Your task to perform on an android device: open app "Lyft - Rideshare, Bikes, Scooters & Transit" (install if not already installed) Image 0: 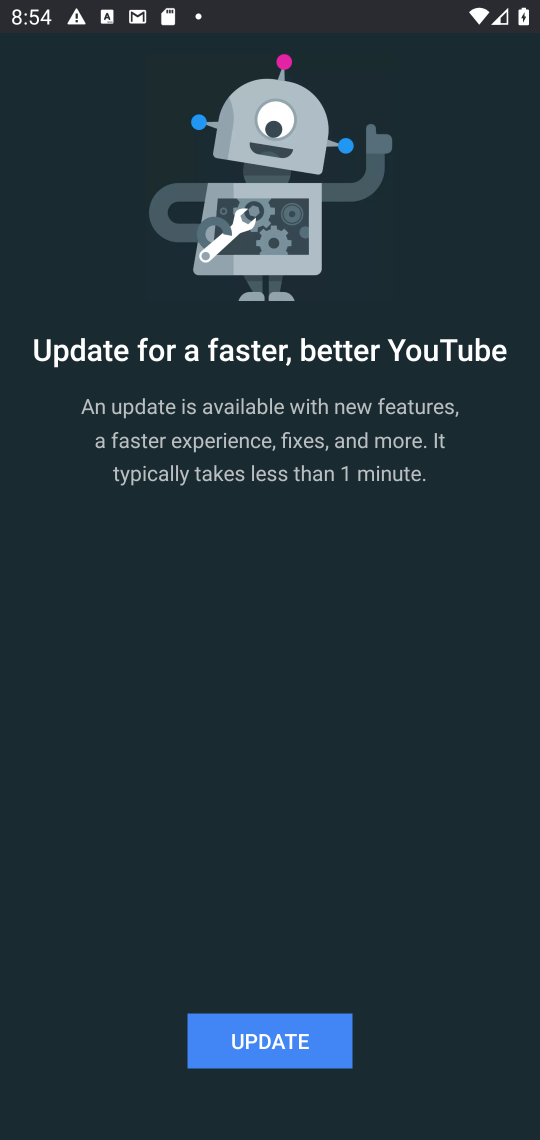
Step 0: press home button
Your task to perform on an android device: open app "Lyft - Rideshare, Bikes, Scooters & Transit" (install if not already installed) Image 1: 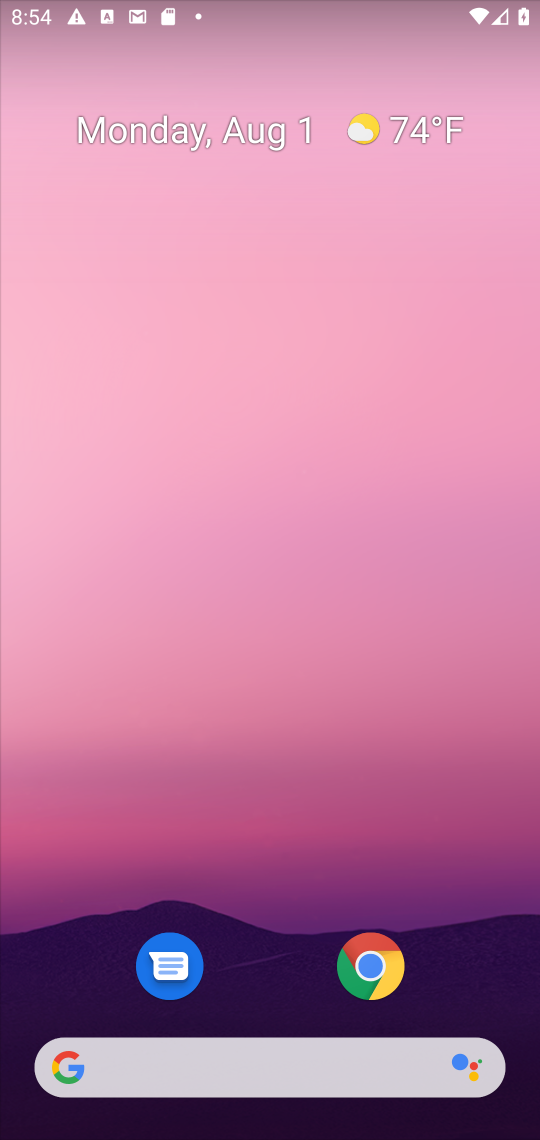
Step 1: drag from (511, 947) to (380, 111)
Your task to perform on an android device: open app "Lyft - Rideshare, Bikes, Scooters & Transit" (install if not already installed) Image 2: 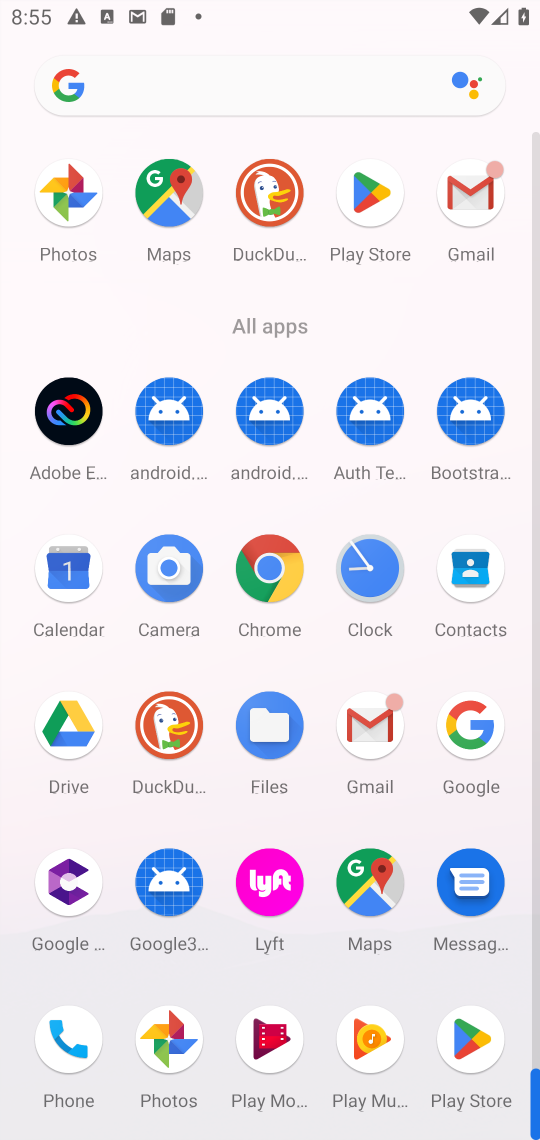
Step 2: click (376, 191)
Your task to perform on an android device: open app "Lyft - Rideshare, Bikes, Scooters & Transit" (install if not already installed) Image 3: 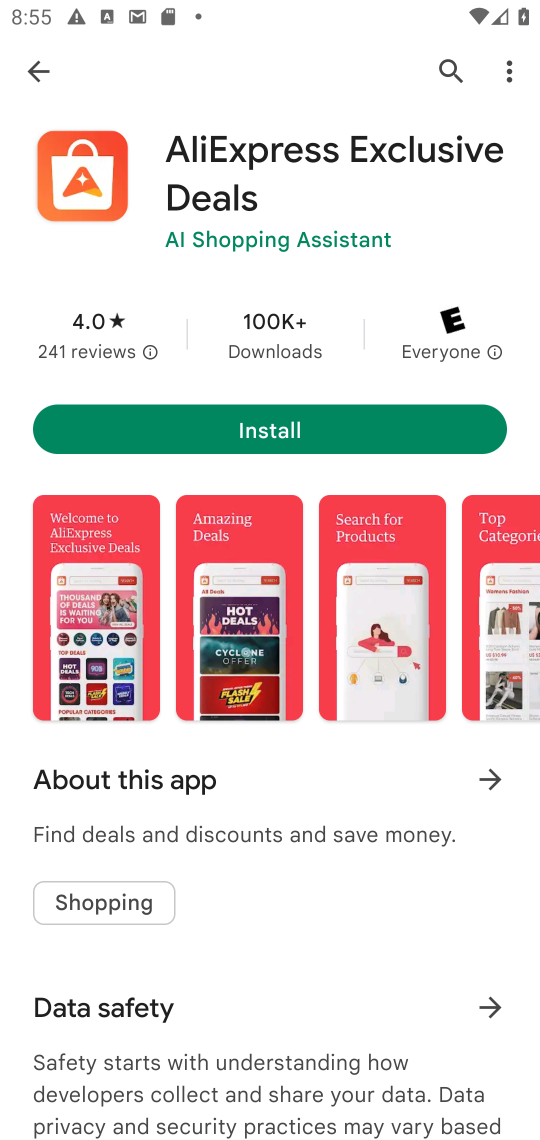
Step 3: click (449, 59)
Your task to perform on an android device: open app "Lyft - Rideshare, Bikes, Scooters & Transit" (install if not already installed) Image 4: 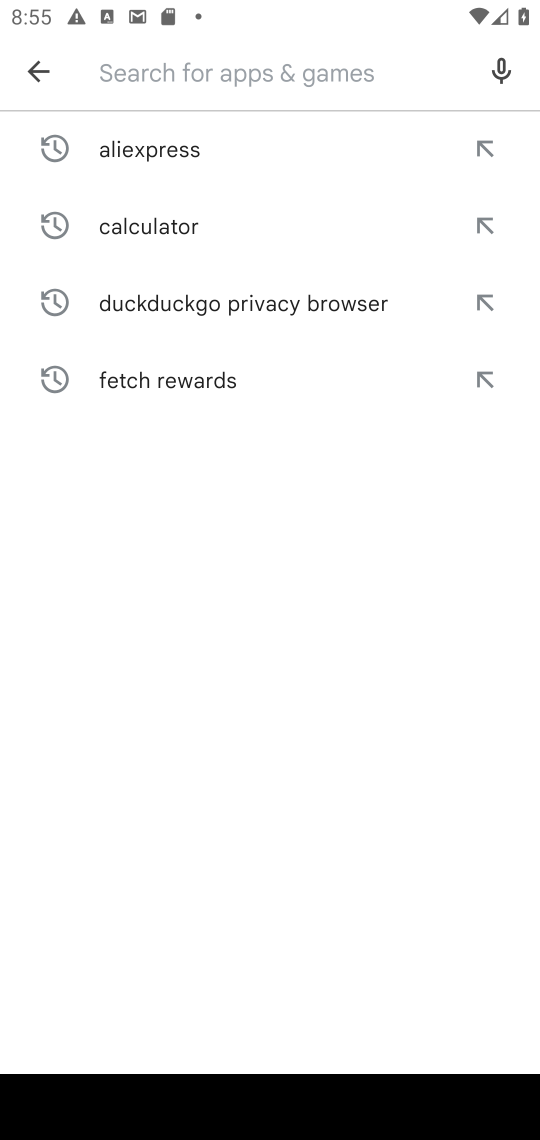
Step 4: type "Lyft - Rideshare, Bikes, Scooters & Transit"
Your task to perform on an android device: open app "Lyft - Rideshare, Bikes, Scooters & Transit" (install if not already installed) Image 5: 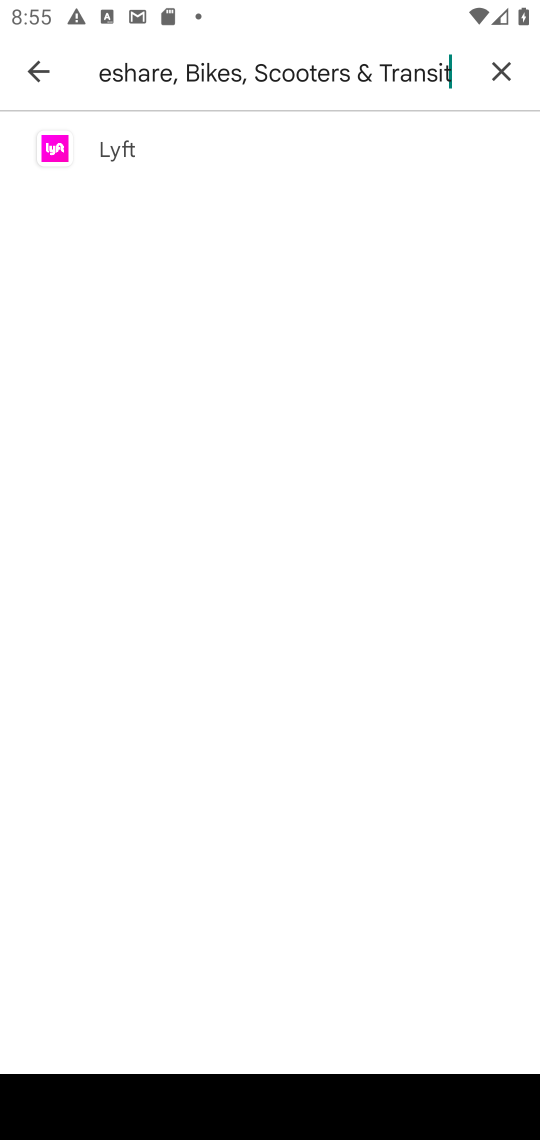
Step 5: click (51, 135)
Your task to perform on an android device: open app "Lyft - Rideshare, Bikes, Scooters & Transit" (install if not already installed) Image 6: 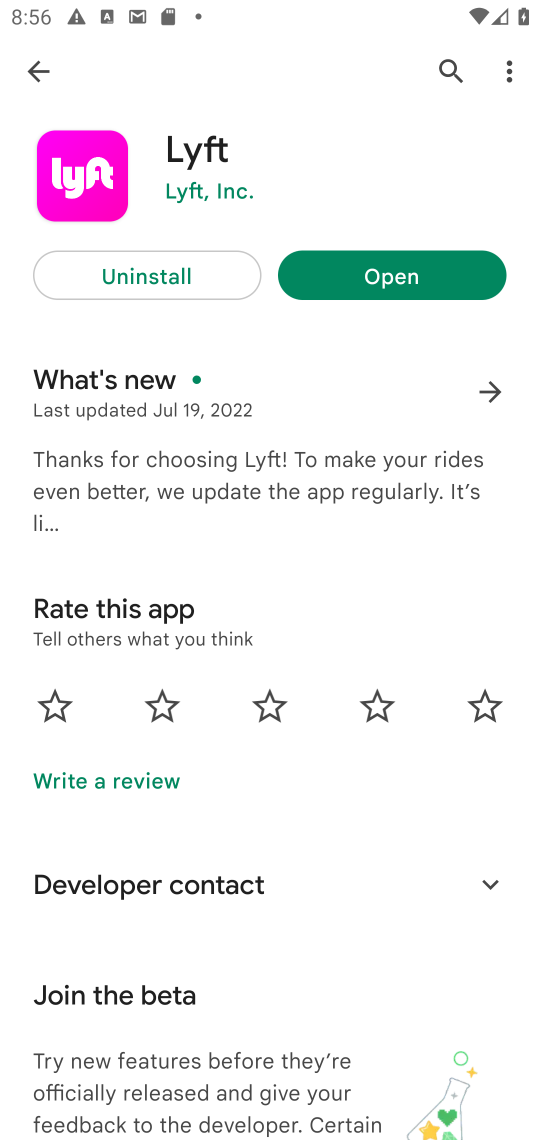
Step 6: click (387, 273)
Your task to perform on an android device: open app "Lyft - Rideshare, Bikes, Scooters & Transit" (install if not already installed) Image 7: 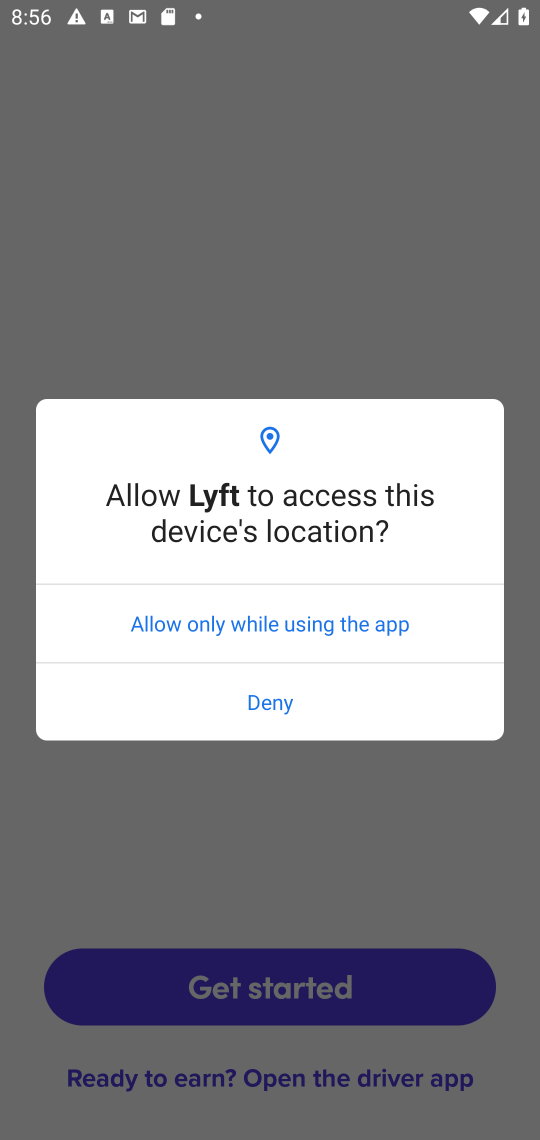
Step 7: click (279, 707)
Your task to perform on an android device: open app "Lyft - Rideshare, Bikes, Scooters & Transit" (install if not already installed) Image 8: 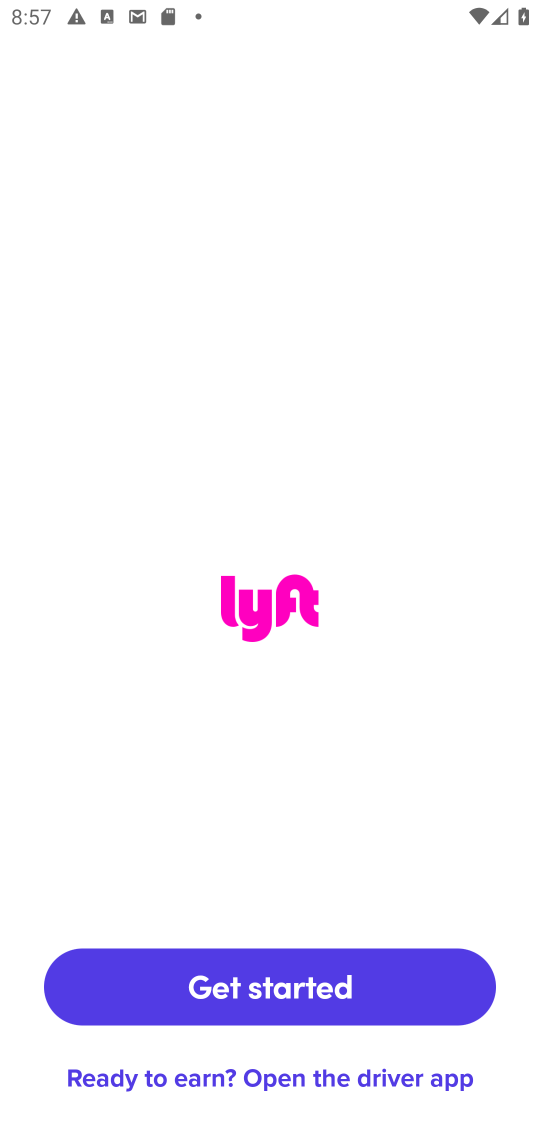
Step 8: click (358, 984)
Your task to perform on an android device: open app "Lyft - Rideshare, Bikes, Scooters & Transit" (install if not already installed) Image 9: 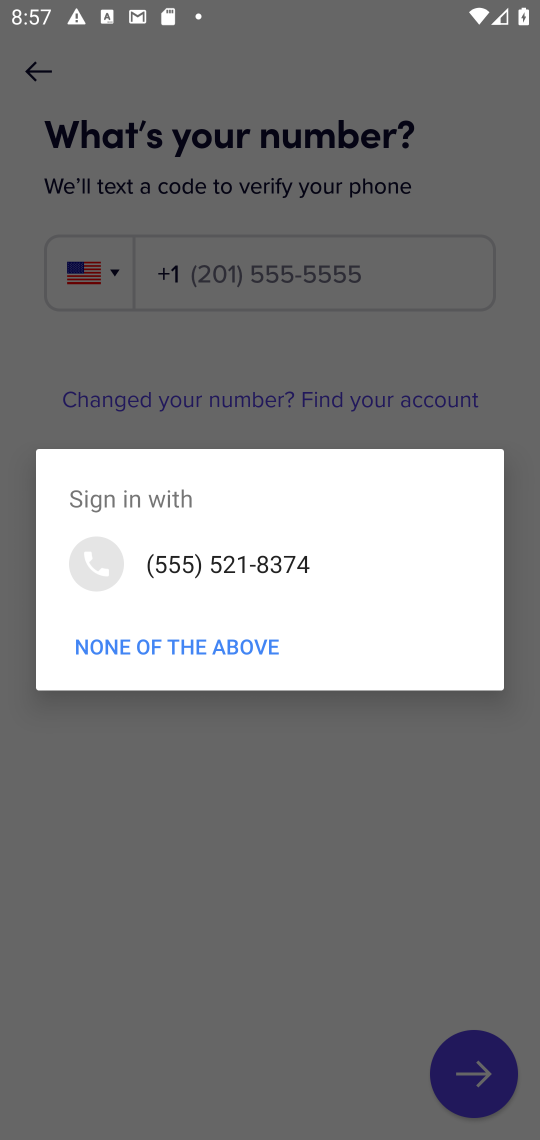
Step 9: task complete